Your task to perform on an android device: Go to sound settings Image 0: 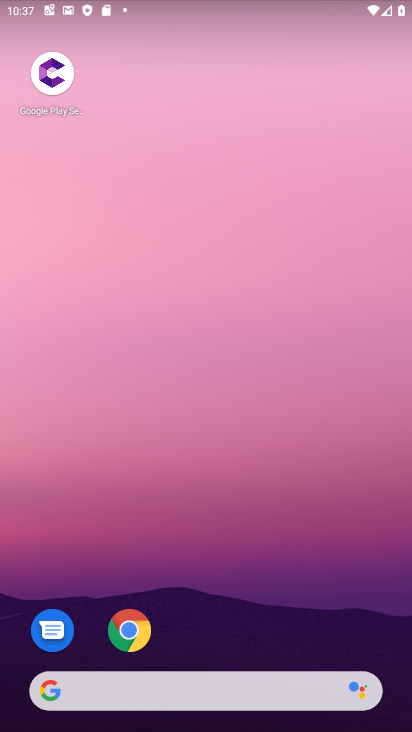
Step 0: drag from (235, 581) to (308, 25)
Your task to perform on an android device: Go to sound settings Image 1: 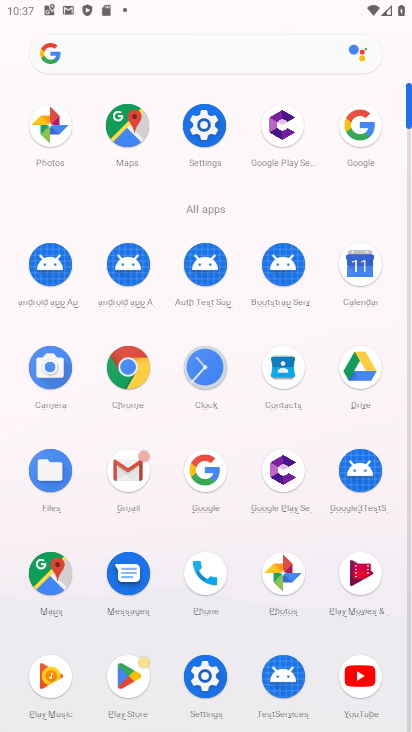
Step 1: click (215, 128)
Your task to perform on an android device: Go to sound settings Image 2: 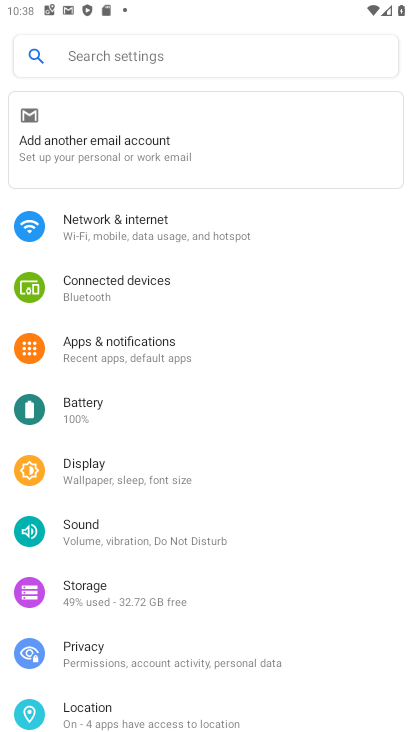
Step 2: click (135, 533)
Your task to perform on an android device: Go to sound settings Image 3: 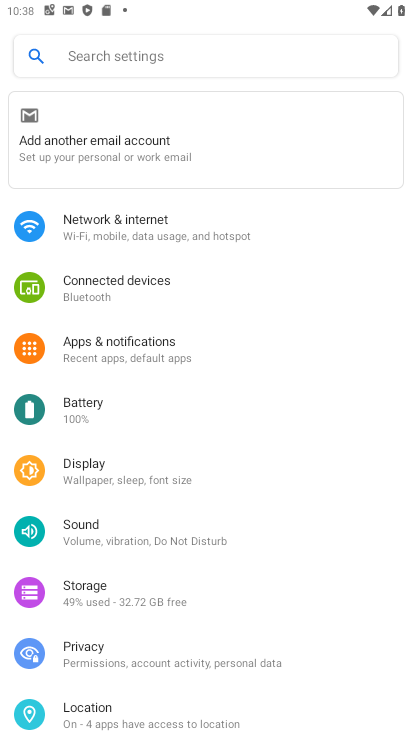
Step 3: click (123, 541)
Your task to perform on an android device: Go to sound settings Image 4: 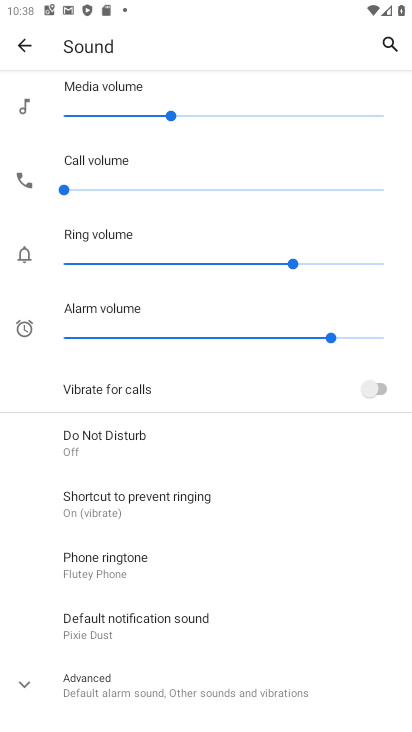
Step 4: task complete